Your task to perform on an android device: find photos in the google photos app Image 0: 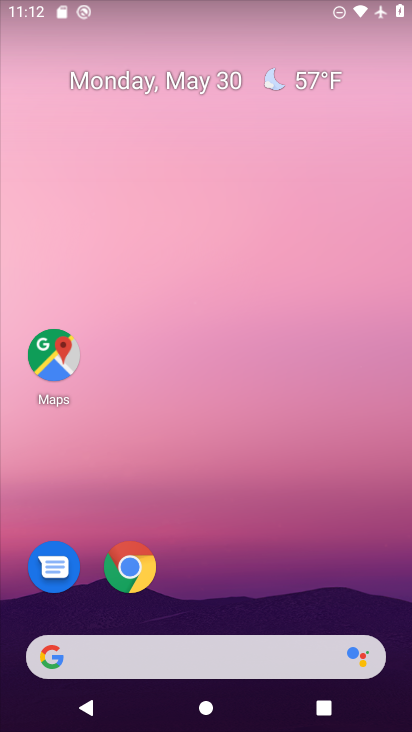
Step 0: drag from (192, 602) to (197, 138)
Your task to perform on an android device: find photos in the google photos app Image 1: 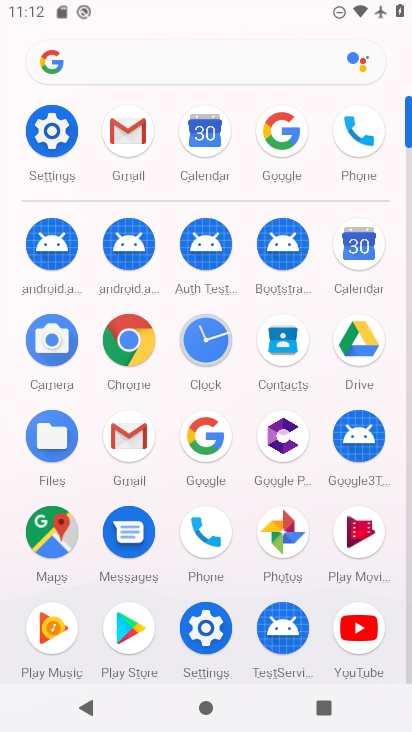
Step 1: click (284, 538)
Your task to perform on an android device: find photos in the google photos app Image 2: 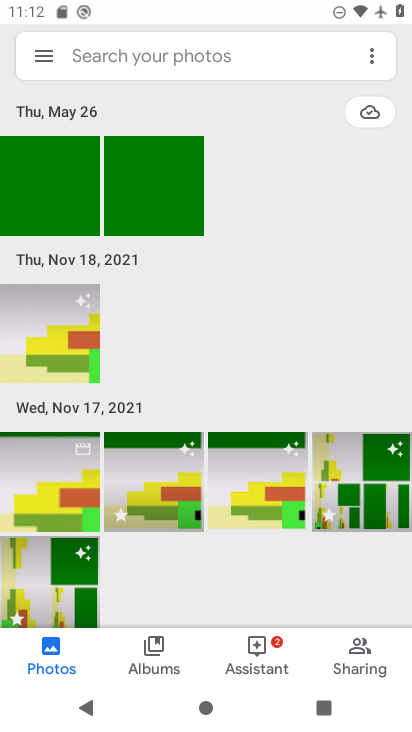
Step 2: click (123, 62)
Your task to perform on an android device: find photos in the google photos app Image 3: 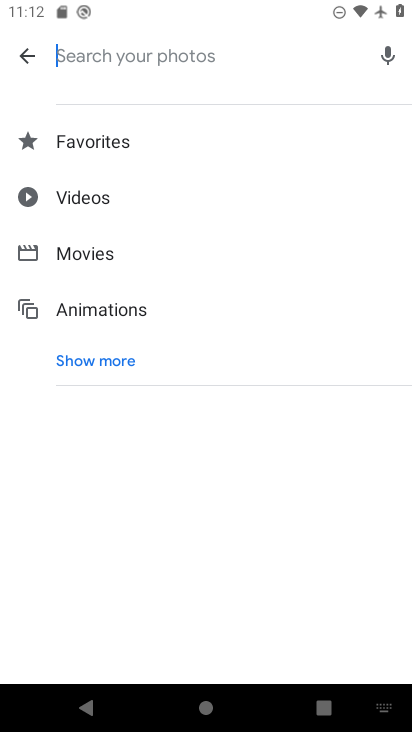
Step 3: type "aa"
Your task to perform on an android device: find photos in the google photos app Image 4: 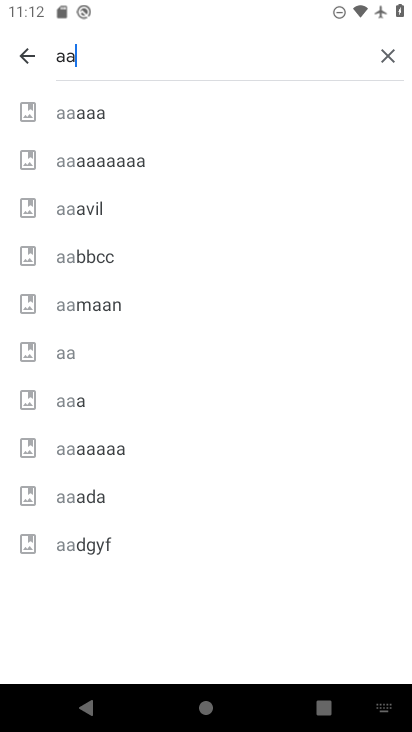
Step 4: click (119, 225)
Your task to perform on an android device: find photos in the google photos app Image 5: 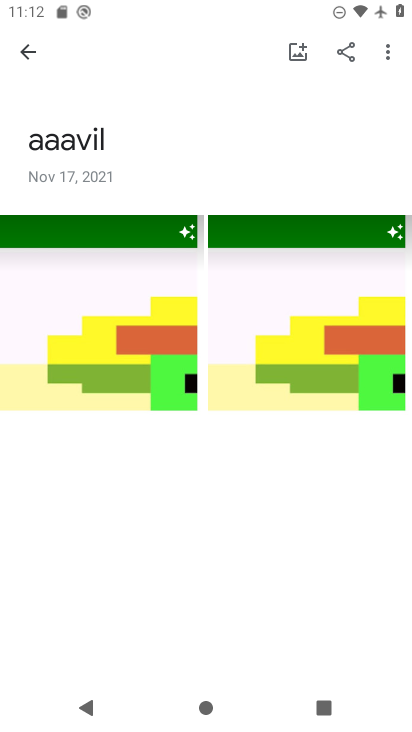
Step 5: task complete